Your task to perform on an android device: Open wifi settings Image 0: 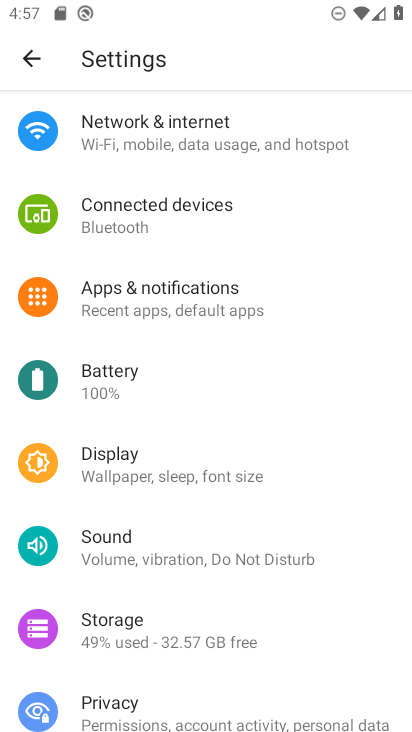
Step 0: click (151, 134)
Your task to perform on an android device: Open wifi settings Image 1: 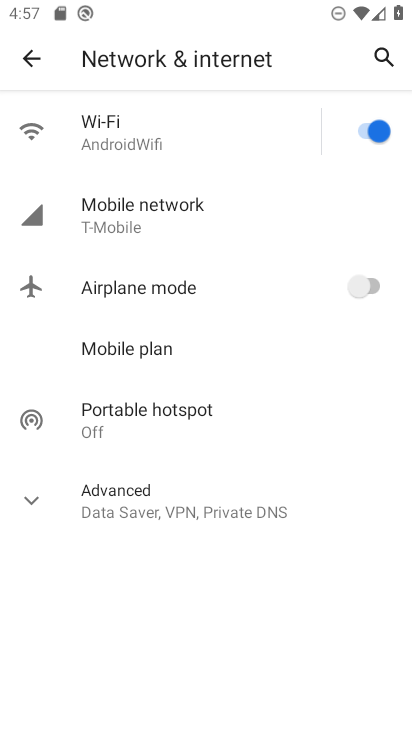
Step 1: task complete